Your task to perform on an android device: turn notification dots on Image 0: 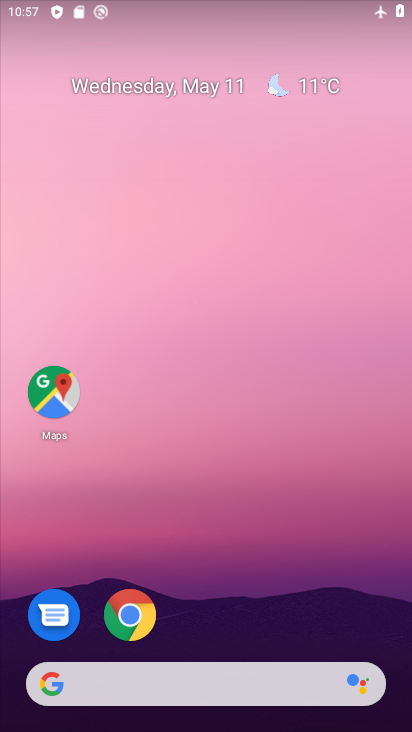
Step 0: drag from (299, 633) to (229, 140)
Your task to perform on an android device: turn notification dots on Image 1: 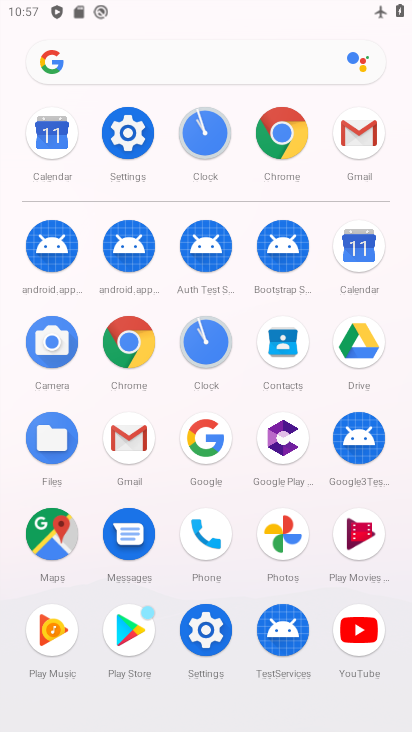
Step 1: click (150, 149)
Your task to perform on an android device: turn notification dots on Image 2: 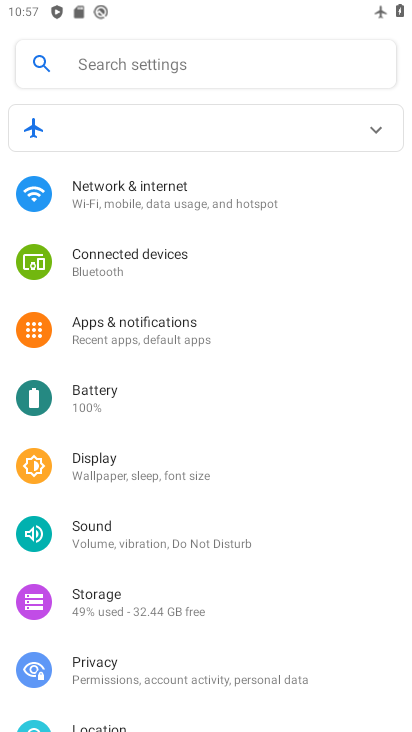
Step 2: click (162, 334)
Your task to perform on an android device: turn notification dots on Image 3: 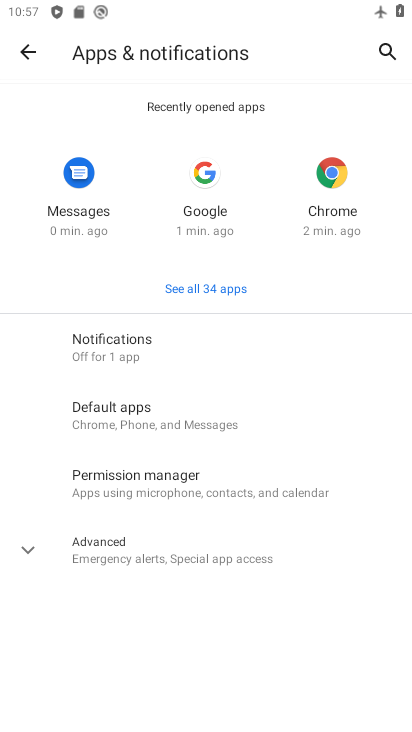
Step 3: click (151, 358)
Your task to perform on an android device: turn notification dots on Image 4: 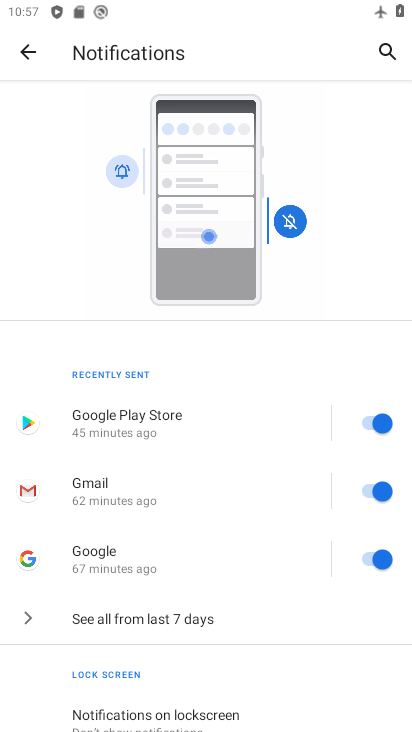
Step 4: drag from (244, 662) to (242, 133)
Your task to perform on an android device: turn notification dots on Image 5: 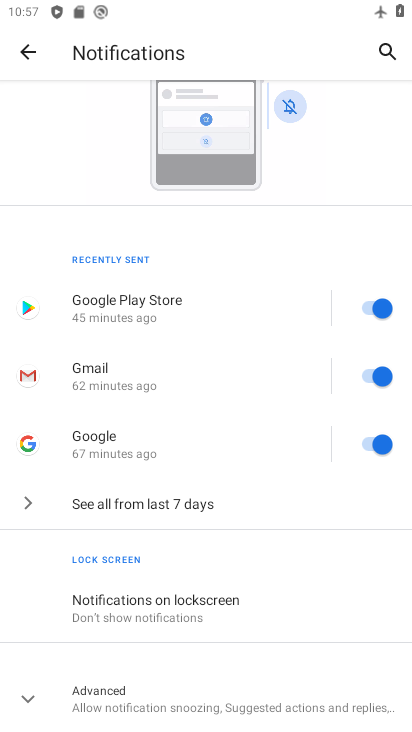
Step 5: click (127, 722)
Your task to perform on an android device: turn notification dots on Image 6: 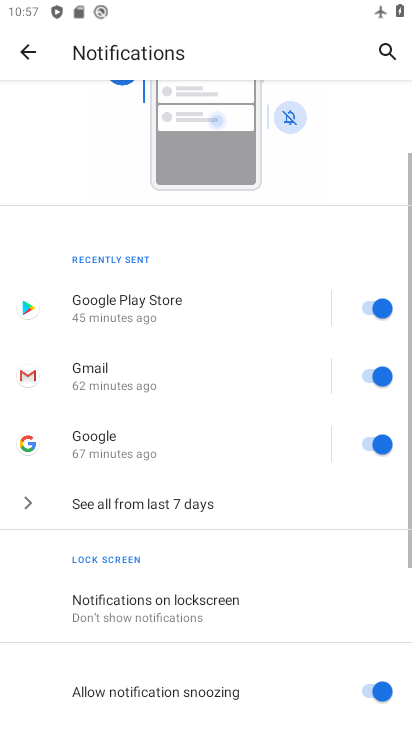
Step 6: task complete